Your task to perform on an android device: Open the calendar and show me this week's events Image 0: 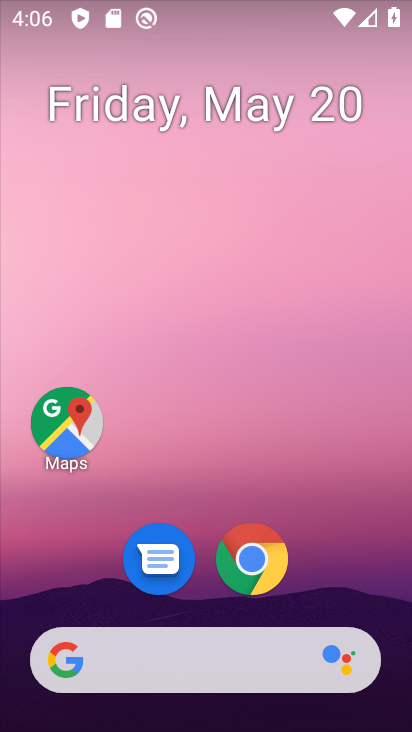
Step 0: drag from (201, 539) to (218, 137)
Your task to perform on an android device: Open the calendar and show me this week's events Image 1: 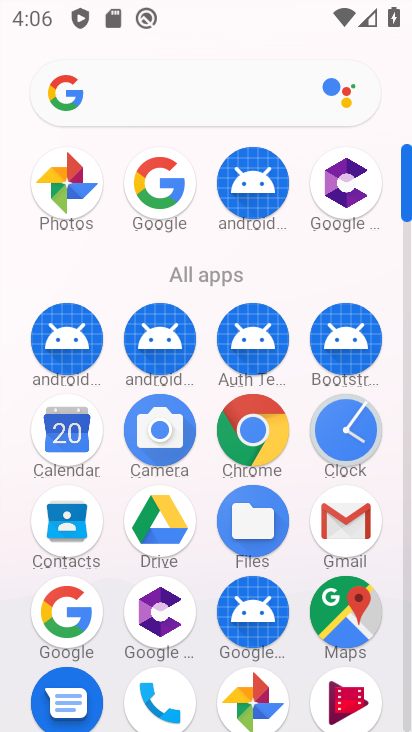
Step 1: click (58, 426)
Your task to perform on an android device: Open the calendar and show me this week's events Image 2: 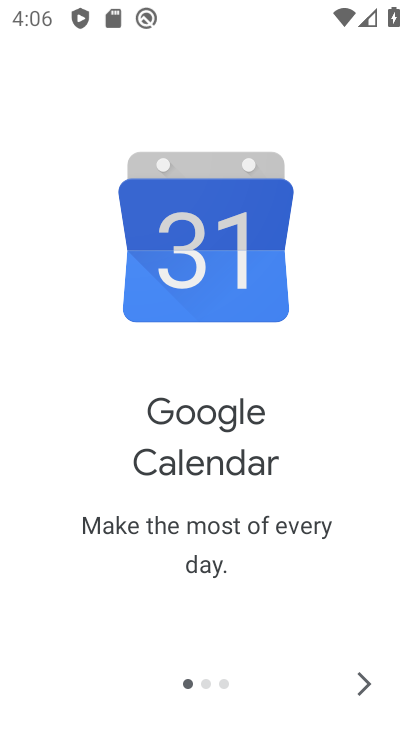
Step 2: click (360, 682)
Your task to perform on an android device: Open the calendar and show me this week's events Image 3: 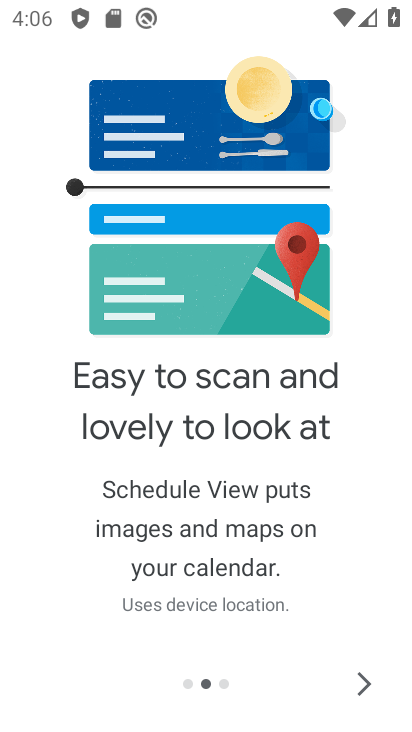
Step 3: click (362, 683)
Your task to perform on an android device: Open the calendar and show me this week's events Image 4: 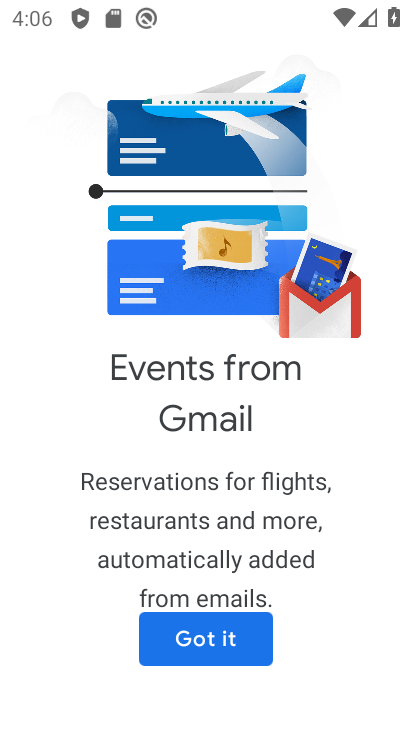
Step 4: click (181, 637)
Your task to perform on an android device: Open the calendar and show me this week's events Image 5: 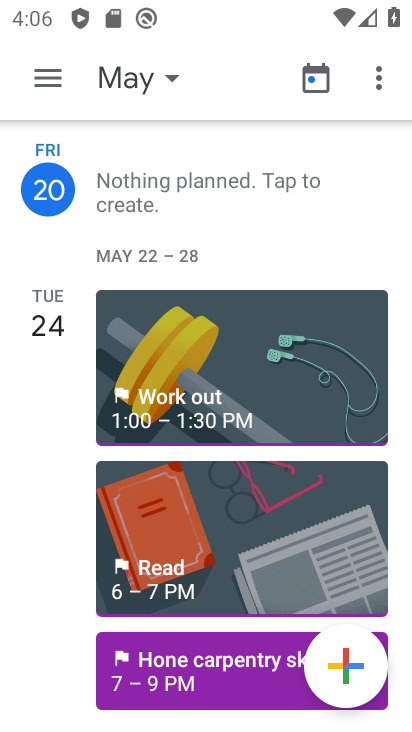
Step 5: click (130, 76)
Your task to perform on an android device: Open the calendar and show me this week's events Image 6: 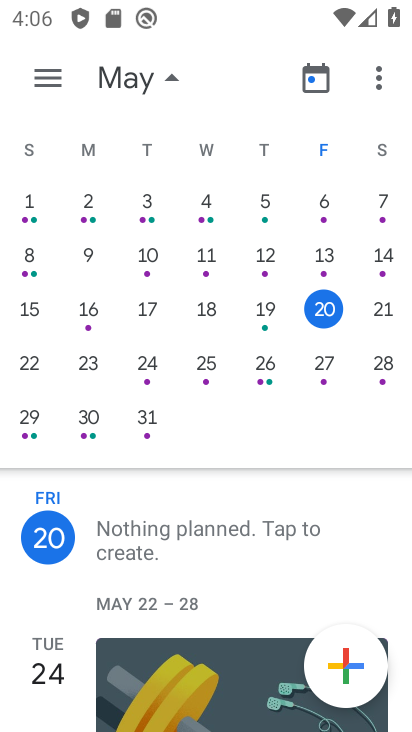
Step 6: click (263, 368)
Your task to perform on an android device: Open the calendar and show me this week's events Image 7: 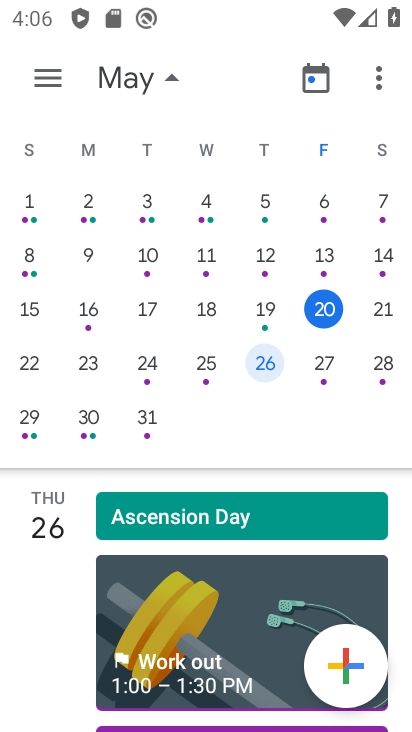
Step 7: drag from (255, 637) to (246, 248)
Your task to perform on an android device: Open the calendar and show me this week's events Image 8: 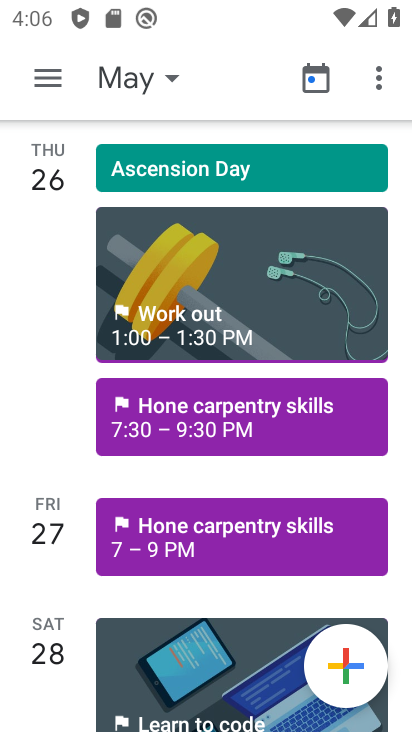
Step 8: drag from (237, 139) to (304, 585)
Your task to perform on an android device: Open the calendar and show me this week's events Image 9: 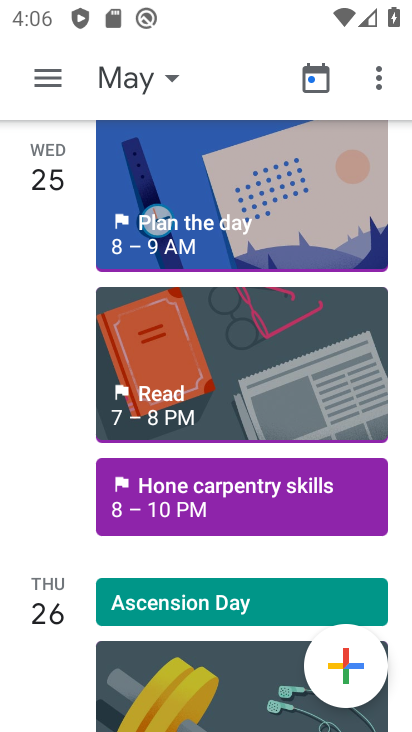
Step 9: drag from (226, 182) to (247, 573)
Your task to perform on an android device: Open the calendar and show me this week's events Image 10: 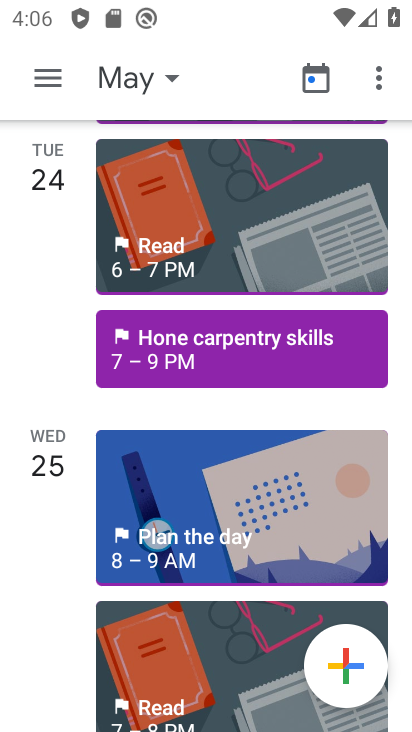
Step 10: click (152, 80)
Your task to perform on an android device: Open the calendar and show me this week's events Image 11: 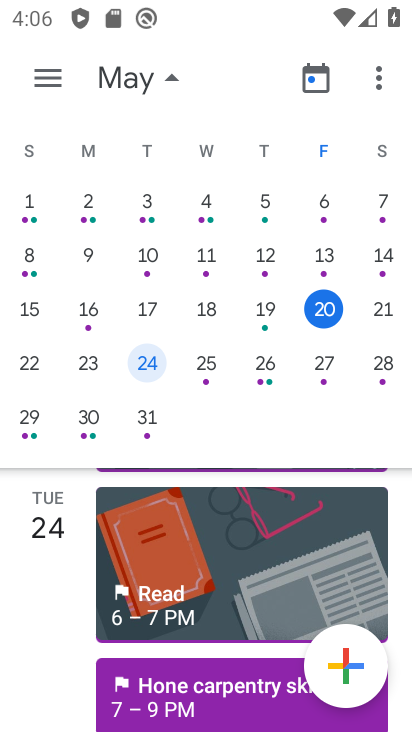
Step 11: click (367, 311)
Your task to perform on an android device: Open the calendar and show me this week's events Image 12: 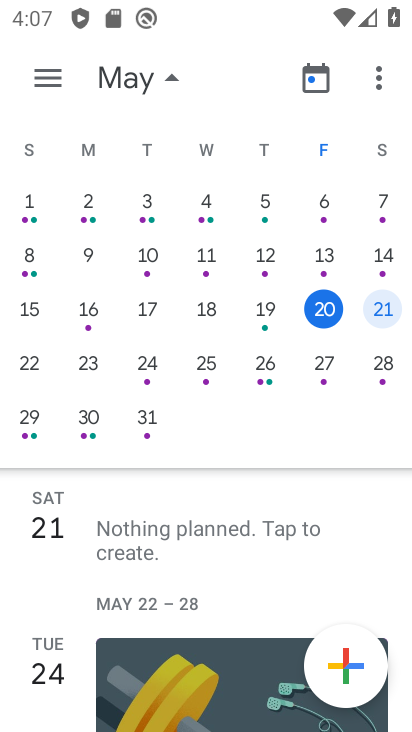
Step 12: drag from (179, 604) to (179, 497)
Your task to perform on an android device: Open the calendar and show me this week's events Image 13: 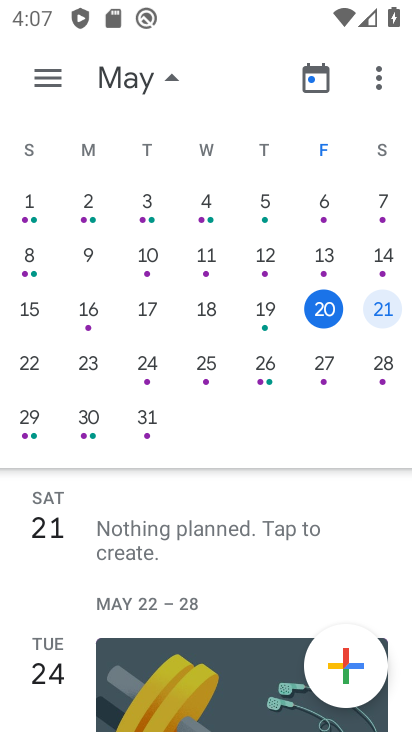
Step 13: click (166, 513)
Your task to perform on an android device: Open the calendar and show me this week's events Image 14: 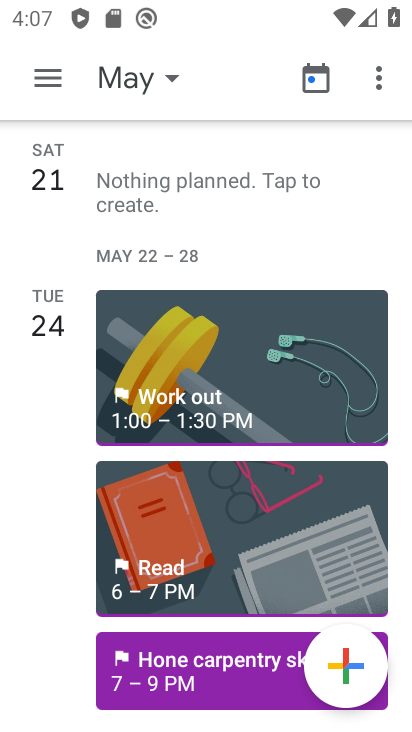
Step 14: click (171, 186)
Your task to perform on an android device: Open the calendar and show me this week's events Image 15: 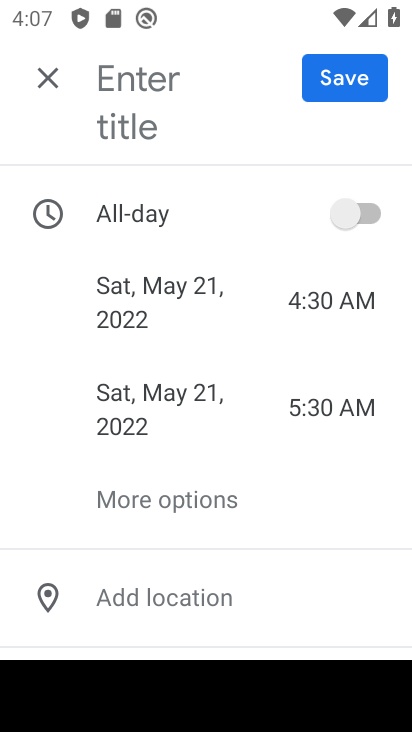
Step 15: task complete